Your task to perform on an android device: Clear the cart on newegg.com. Image 0: 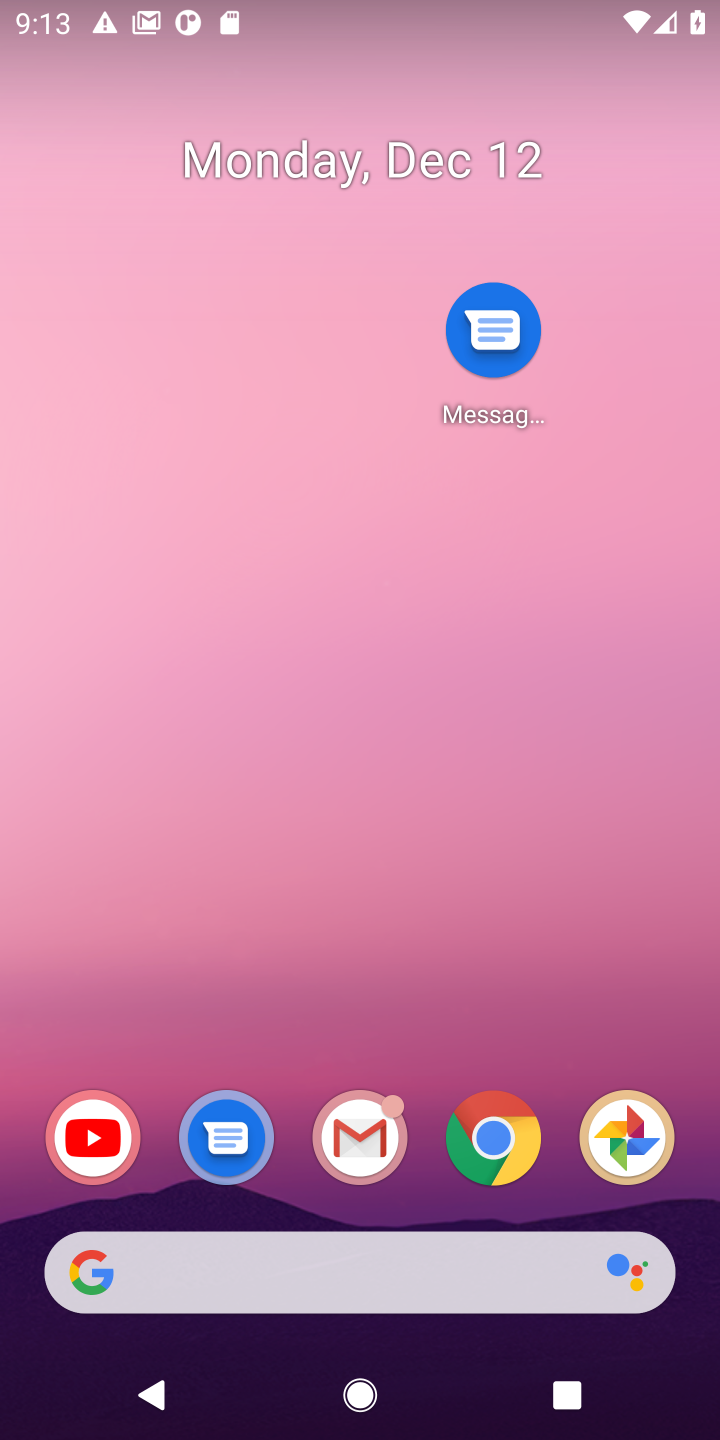
Step 0: drag from (270, 863) to (240, 263)
Your task to perform on an android device: Clear the cart on newegg.com. Image 1: 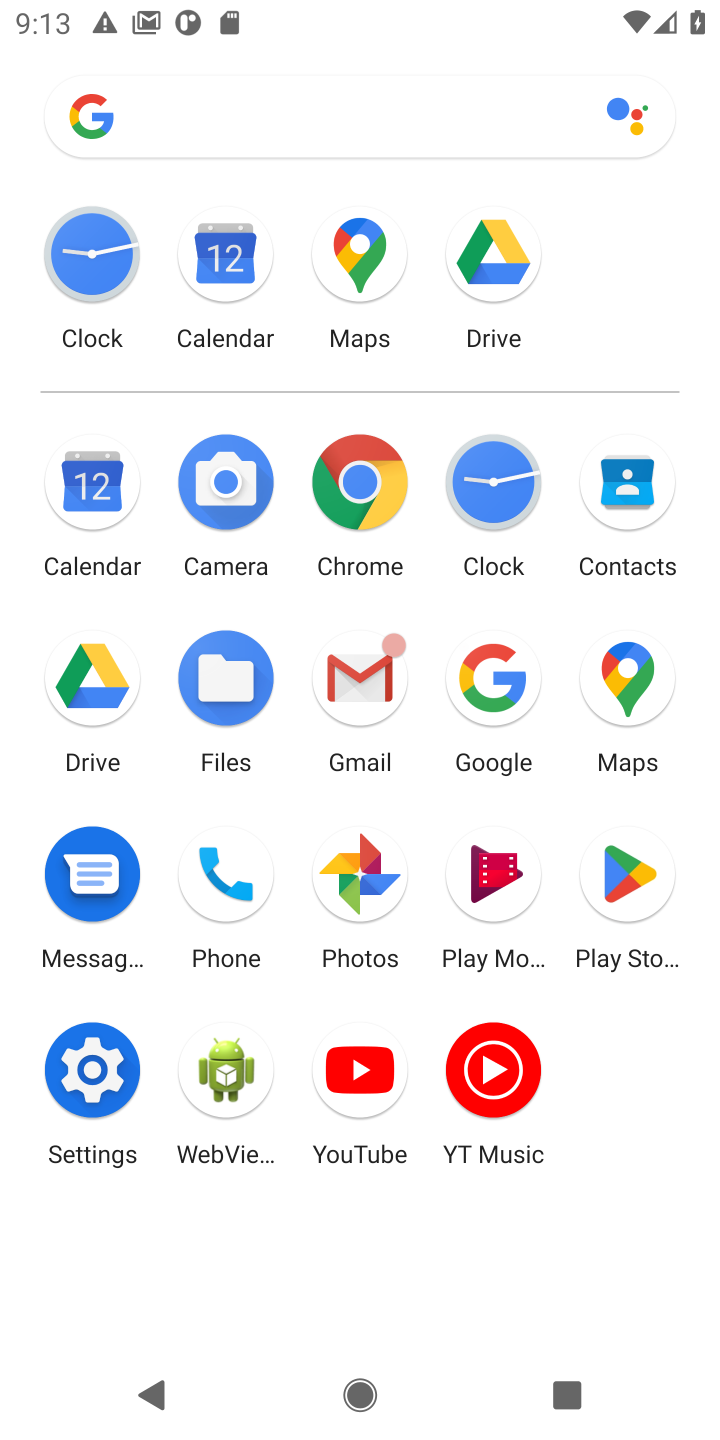
Step 1: click (512, 697)
Your task to perform on an android device: Clear the cart on newegg.com. Image 2: 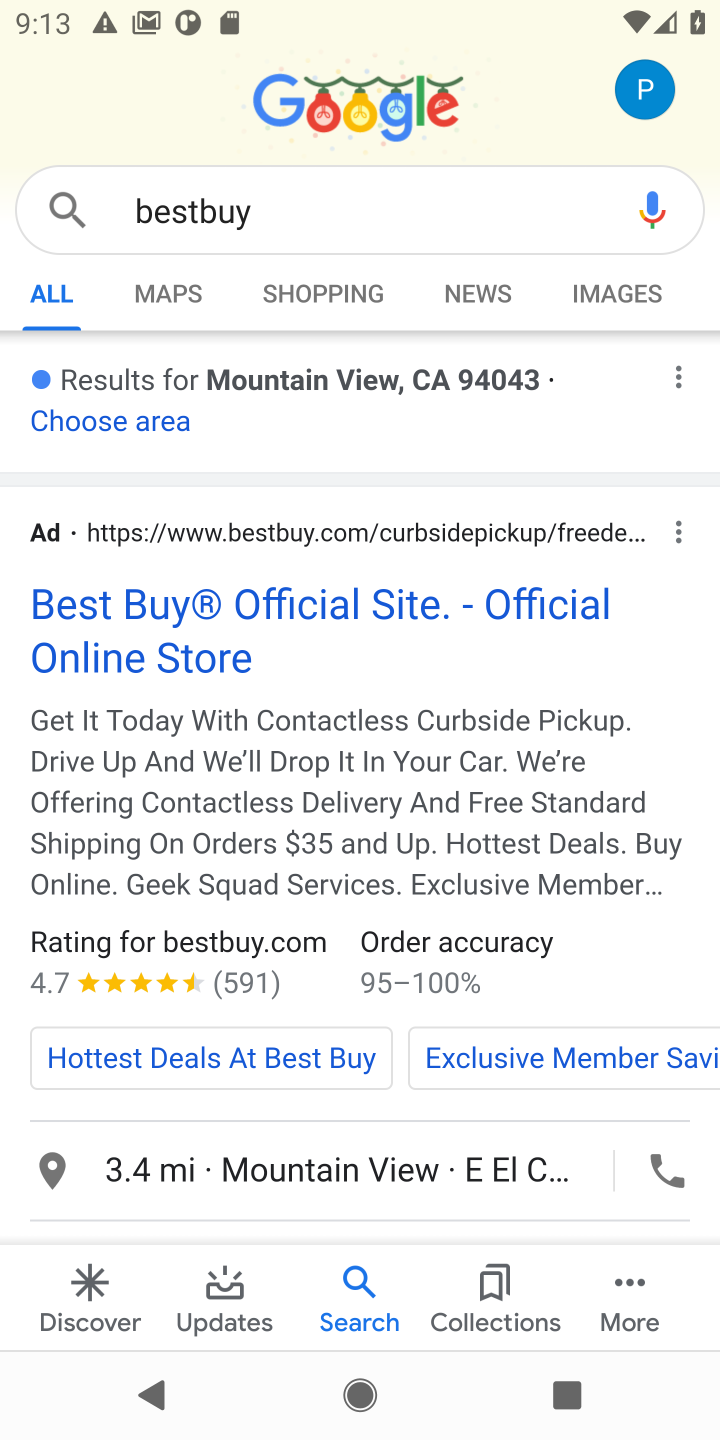
Step 2: click (254, 221)
Your task to perform on an android device: Clear the cart on newegg.com. Image 3: 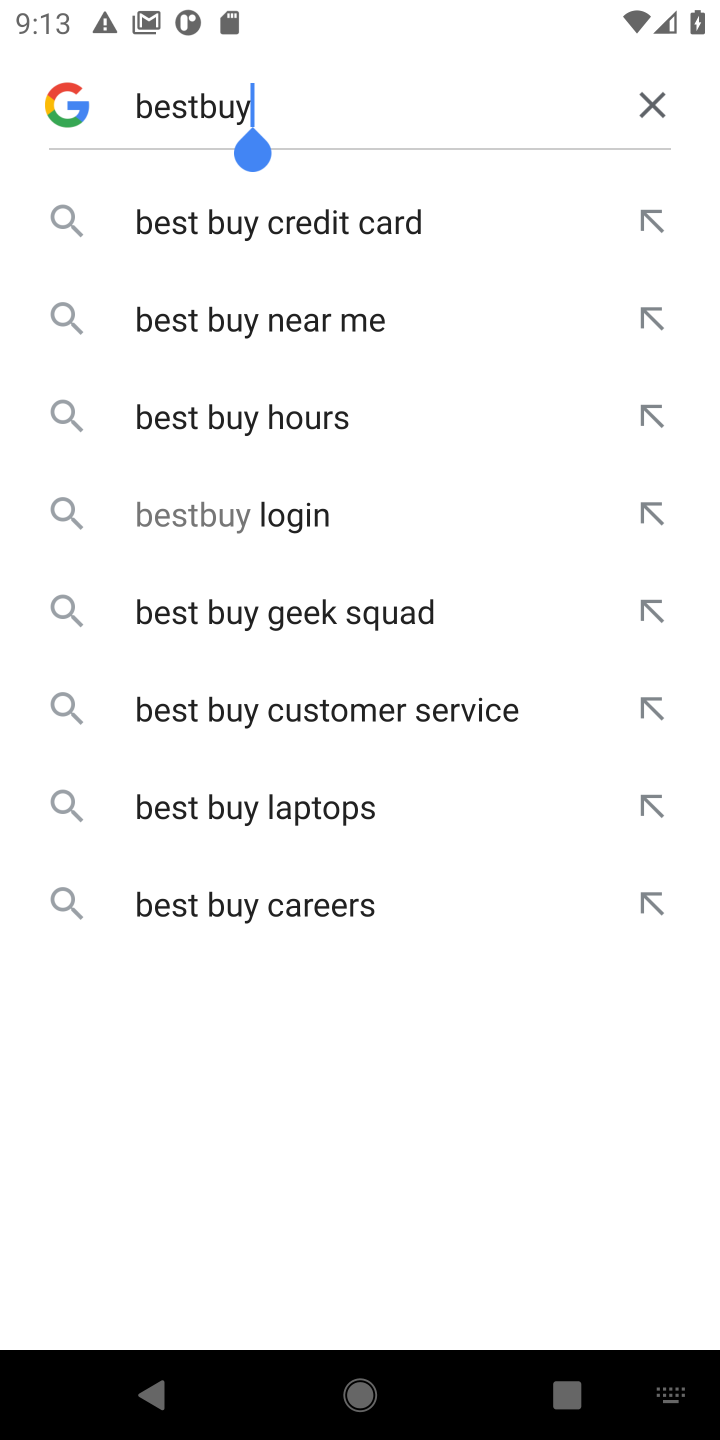
Step 3: click (645, 115)
Your task to perform on an android device: Clear the cart on newegg.com. Image 4: 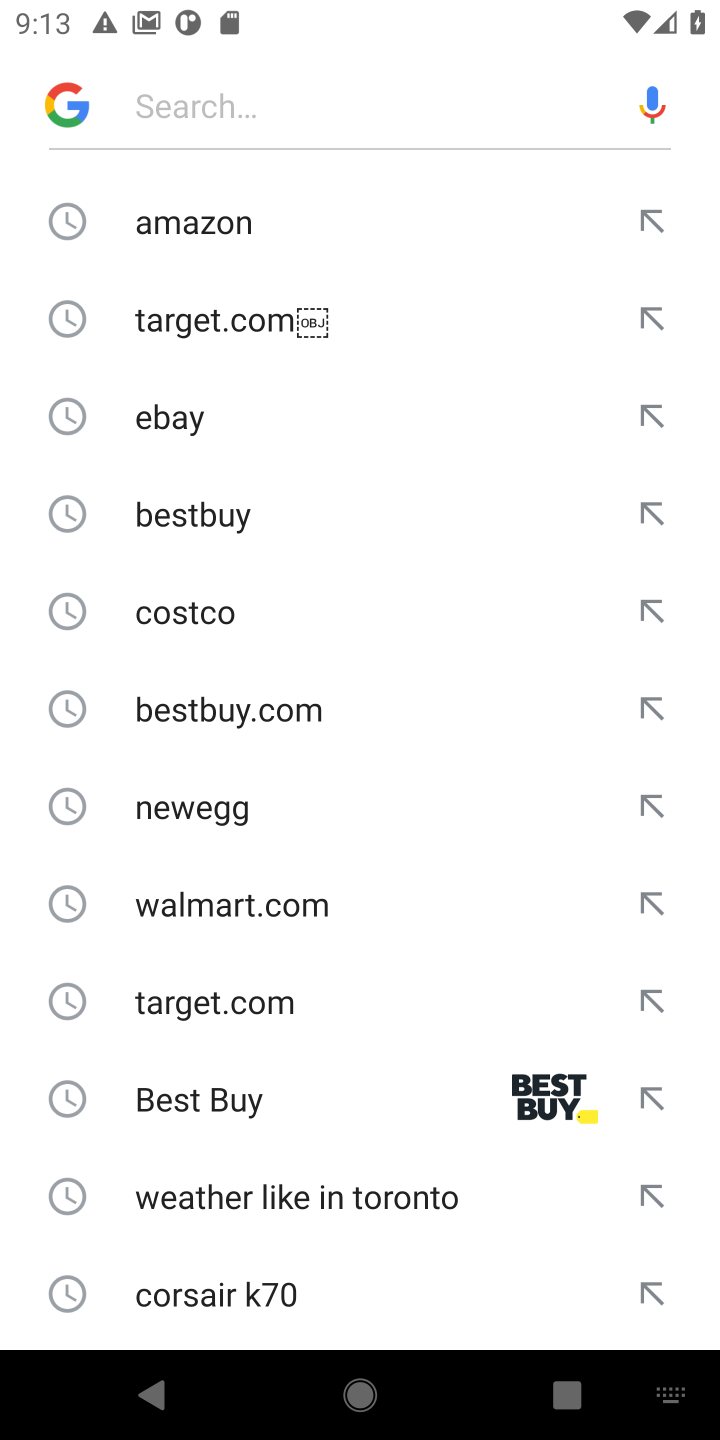
Step 4: click (241, 800)
Your task to perform on an android device: Clear the cart on newegg.com. Image 5: 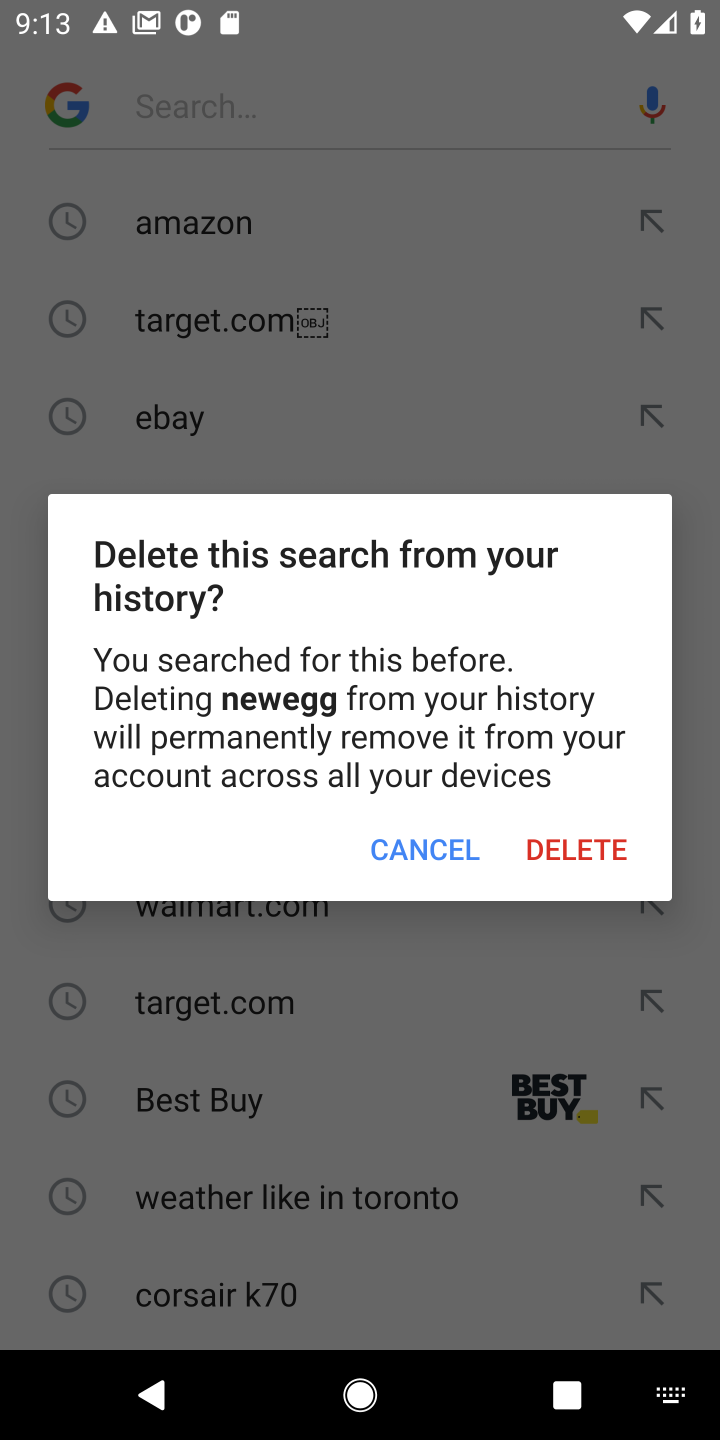
Step 5: click (433, 845)
Your task to perform on an android device: Clear the cart on newegg.com. Image 6: 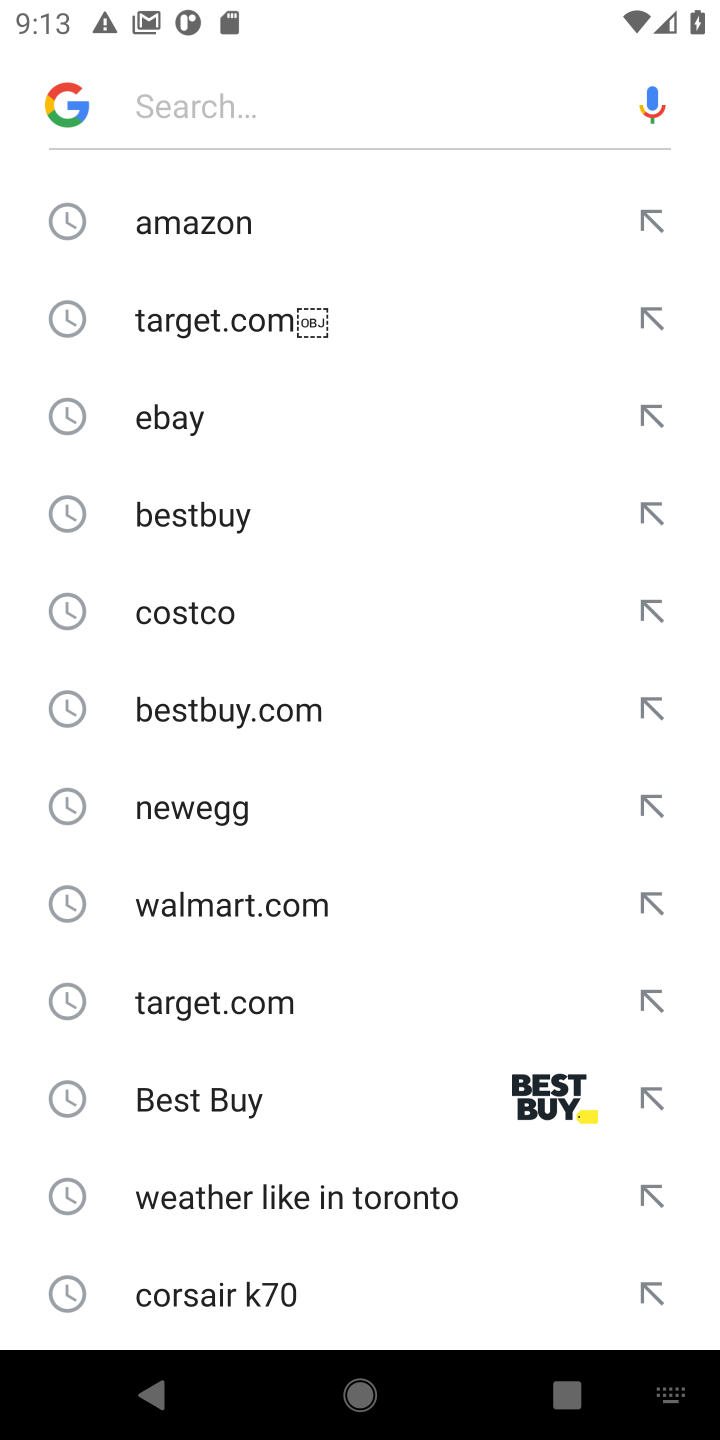
Step 6: click (173, 812)
Your task to perform on an android device: Clear the cart on newegg.com. Image 7: 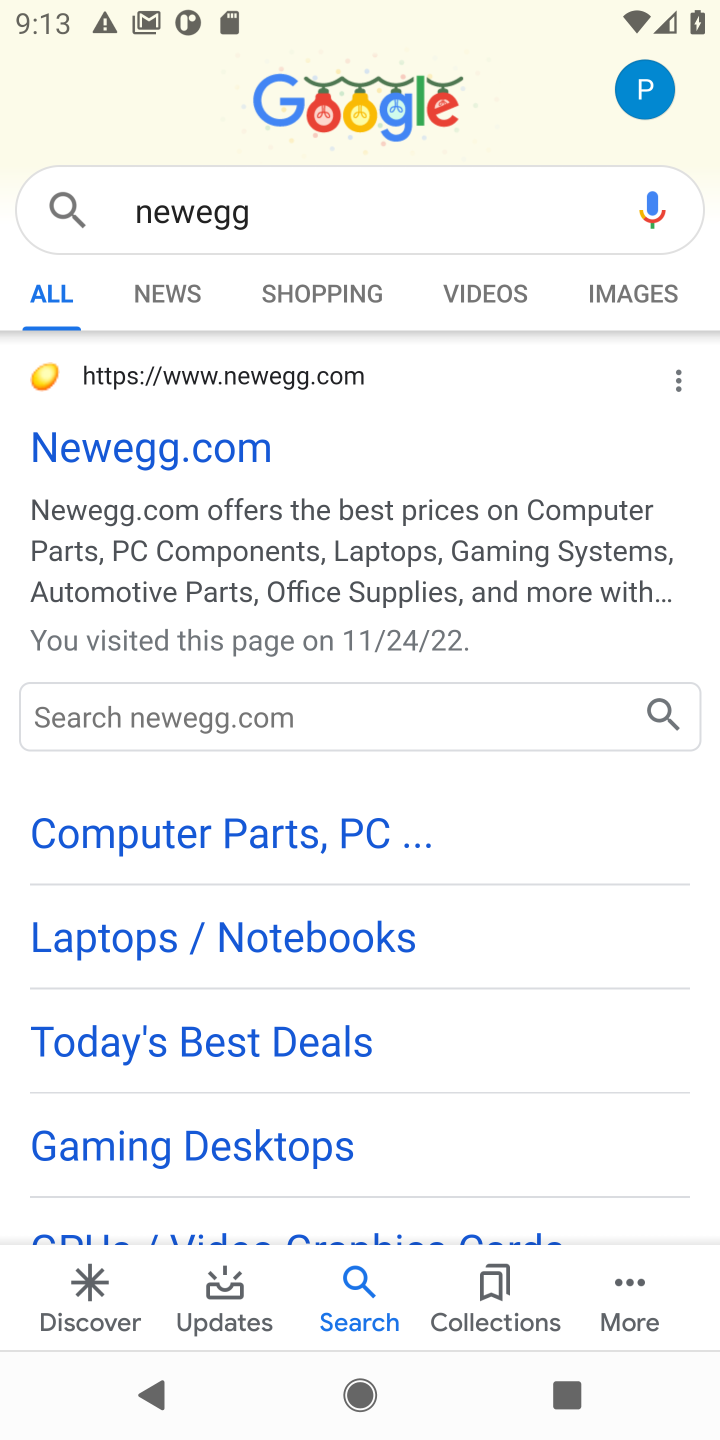
Step 7: click (194, 457)
Your task to perform on an android device: Clear the cart on newegg.com. Image 8: 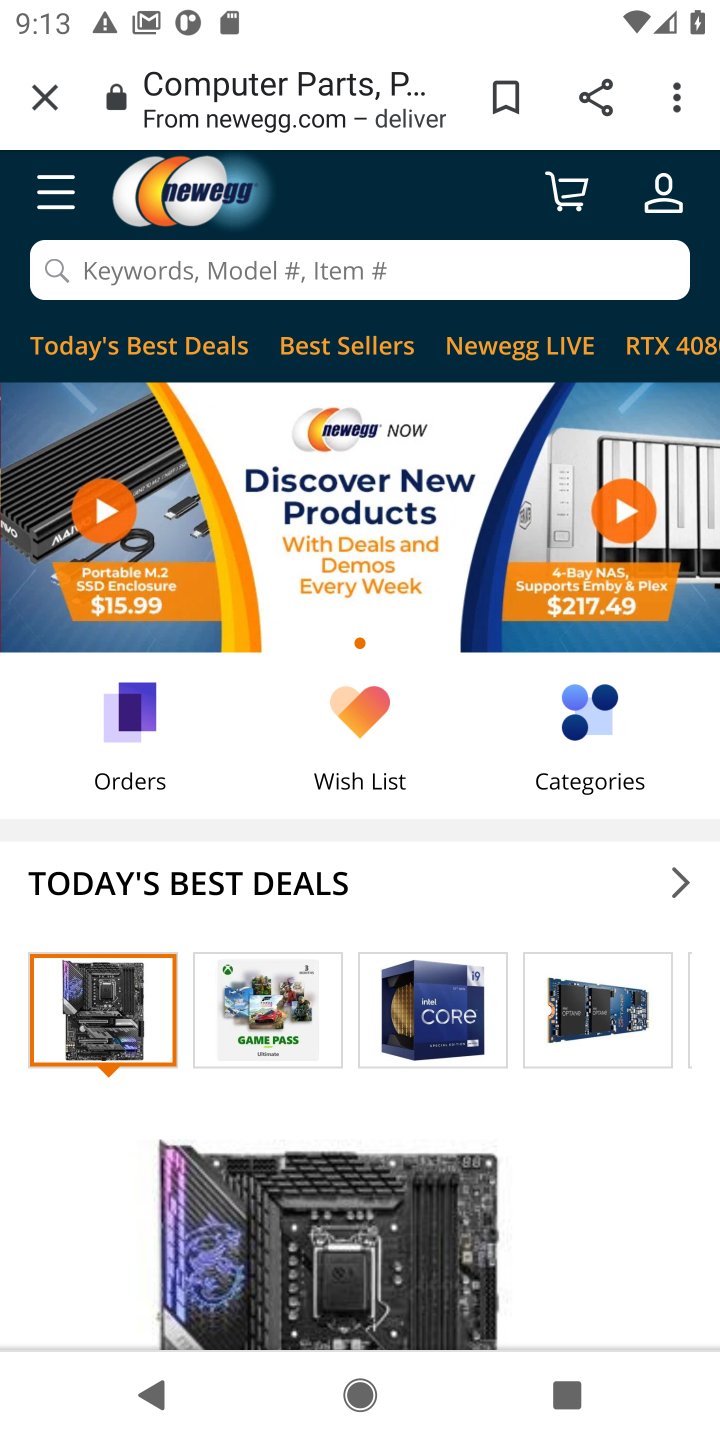
Step 8: click (189, 271)
Your task to perform on an android device: Clear the cart on newegg.com. Image 9: 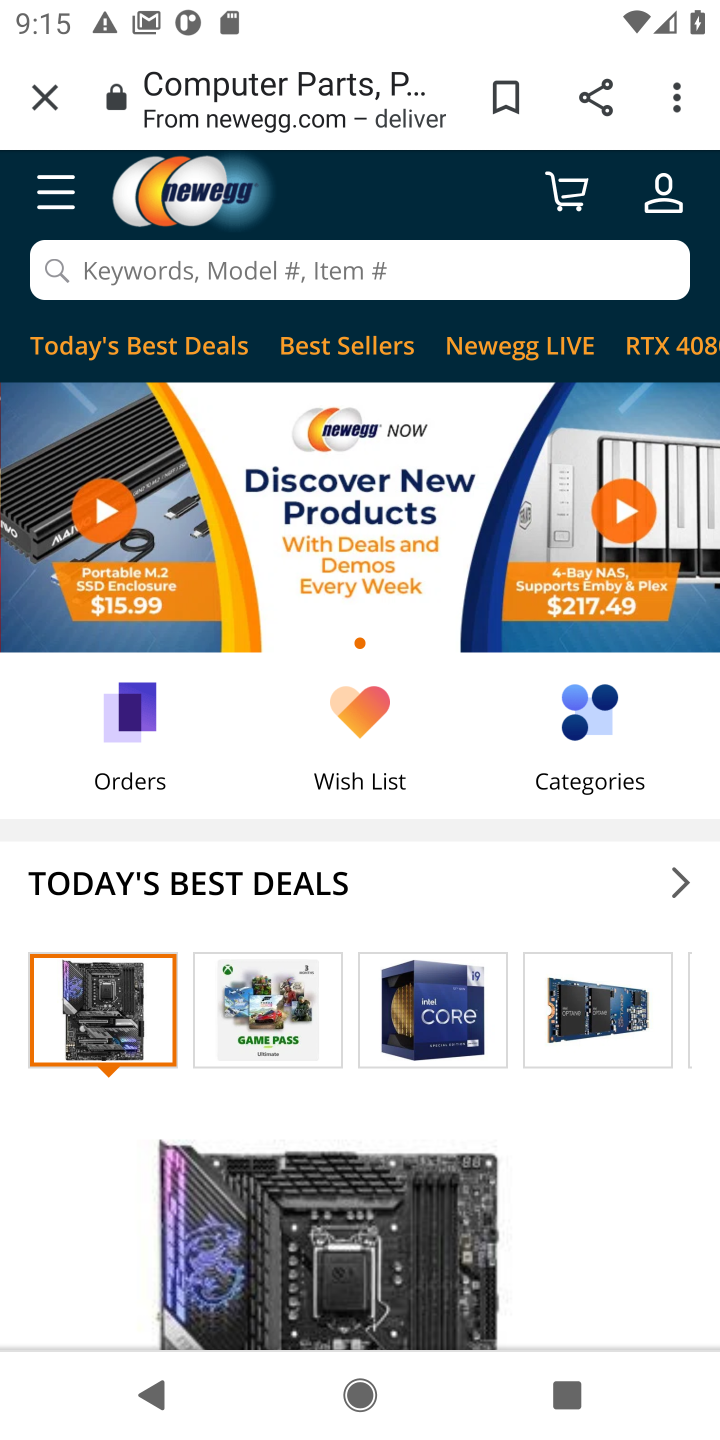
Step 9: task complete